Your task to perform on an android device: What is the news today? Image 0: 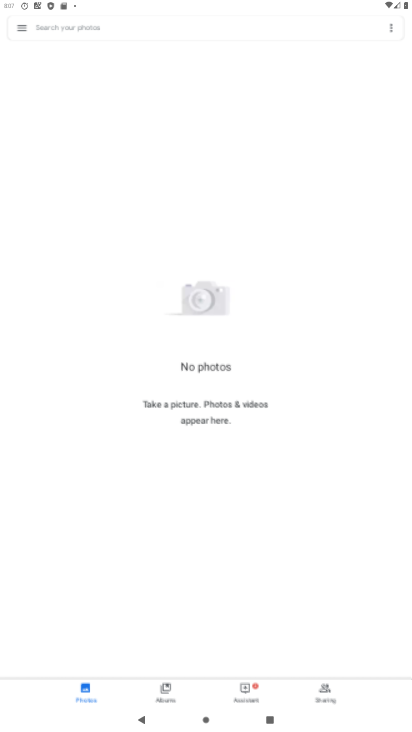
Step 0: drag from (353, 639) to (292, 324)
Your task to perform on an android device: What is the news today? Image 1: 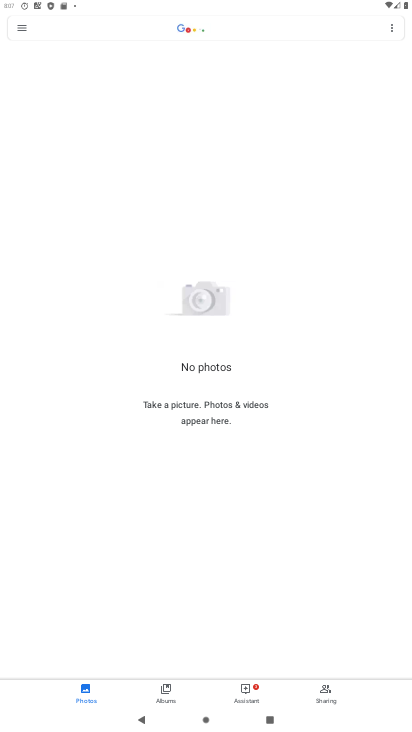
Step 1: press home button
Your task to perform on an android device: What is the news today? Image 2: 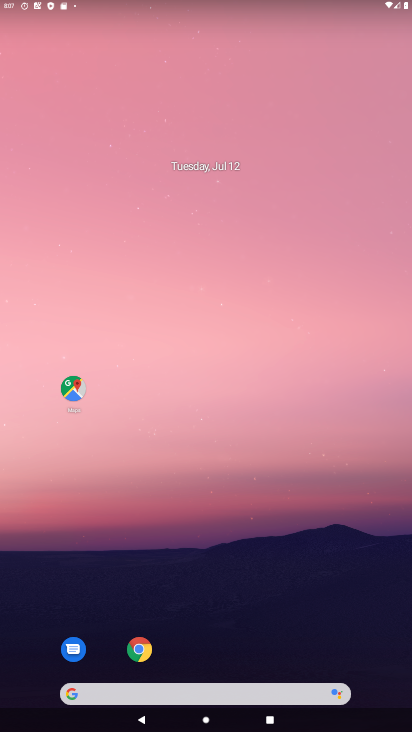
Step 2: drag from (327, 581) to (329, 102)
Your task to perform on an android device: What is the news today? Image 3: 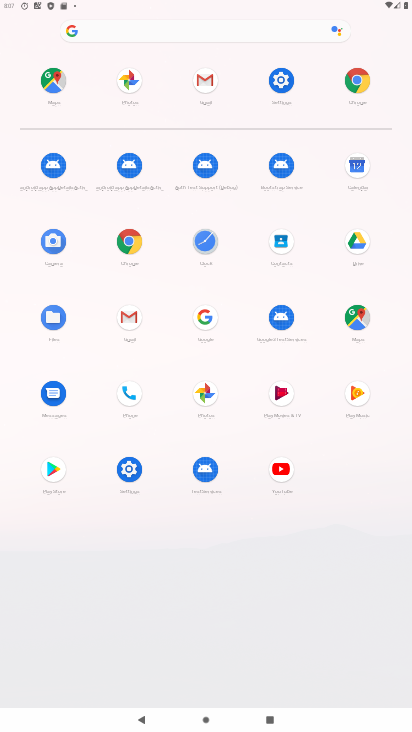
Step 3: click (127, 247)
Your task to perform on an android device: What is the news today? Image 4: 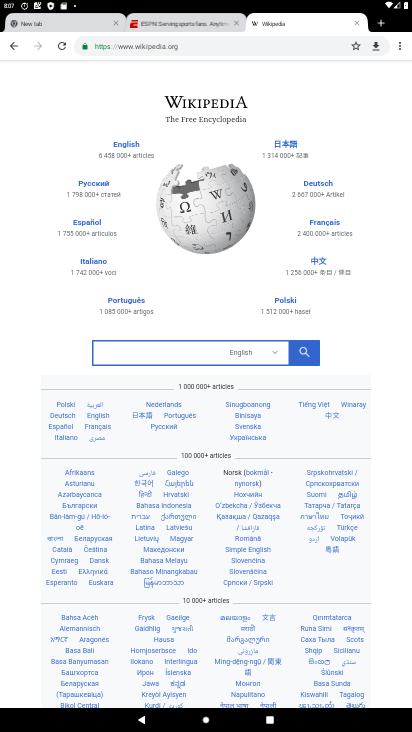
Step 4: click (297, 48)
Your task to perform on an android device: What is the news today? Image 5: 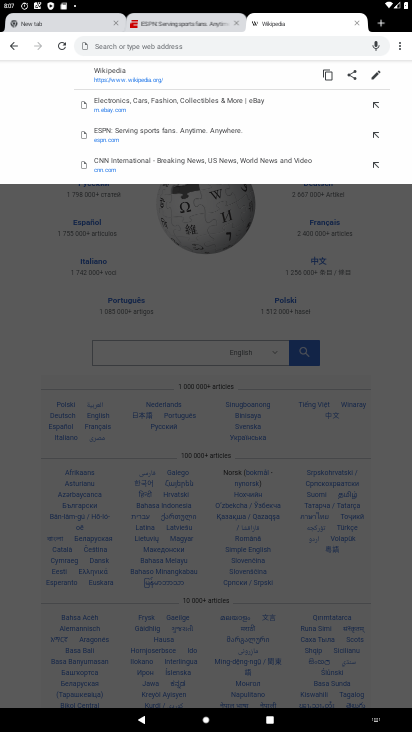
Step 5: type "news"
Your task to perform on an android device: What is the news today? Image 6: 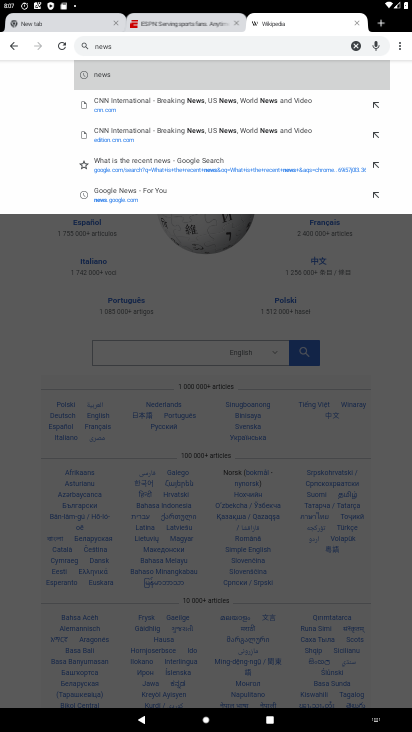
Step 6: click (95, 75)
Your task to perform on an android device: What is the news today? Image 7: 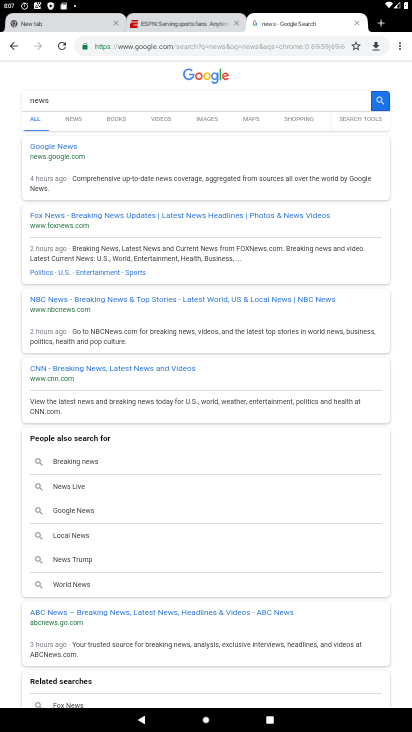
Step 7: click (61, 145)
Your task to perform on an android device: What is the news today? Image 8: 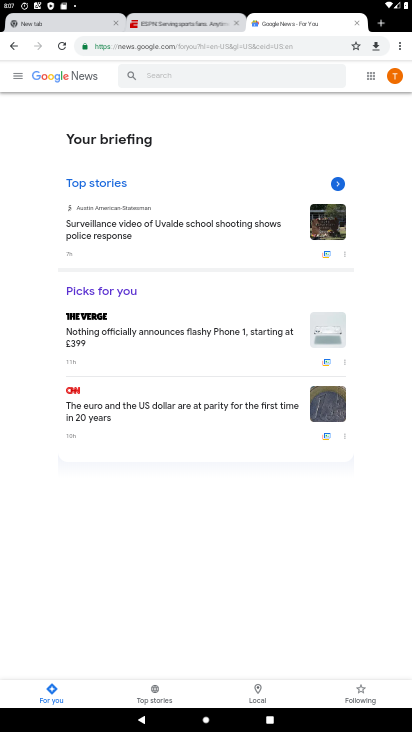
Step 8: task complete